Your task to perform on an android device: Go to privacy settings Image 0: 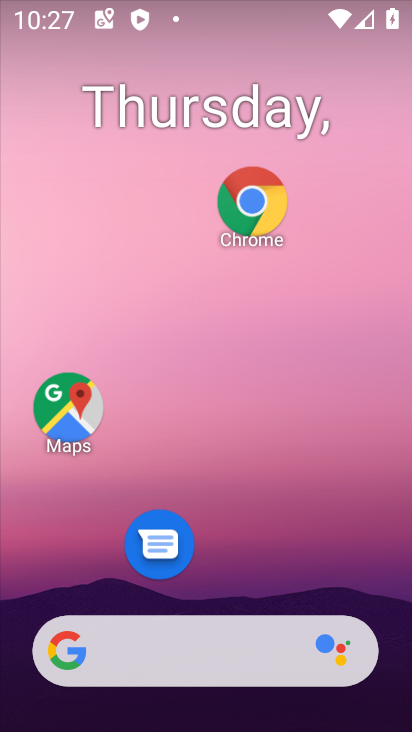
Step 0: drag from (206, 599) to (204, 59)
Your task to perform on an android device: Go to privacy settings Image 1: 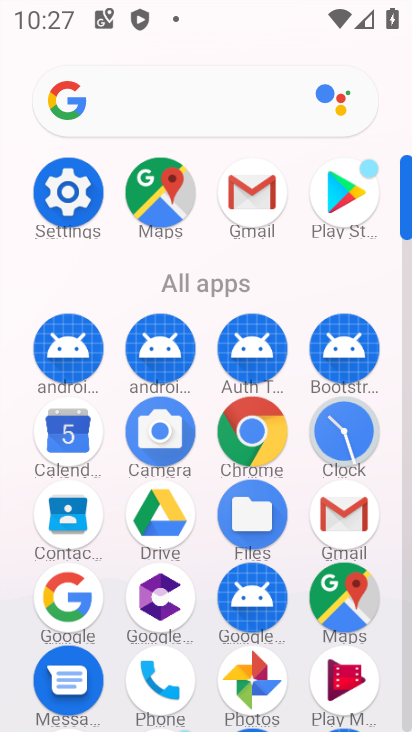
Step 1: click (68, 188)
Your task to perform on an android device: Go to privacy settings Image 2: 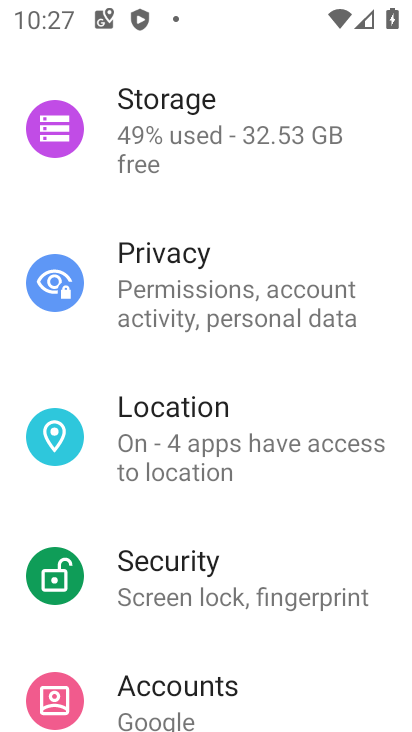
Step 2: click (91, 264)
Your task to perform on an android device: Go to privacy settings Image 3: 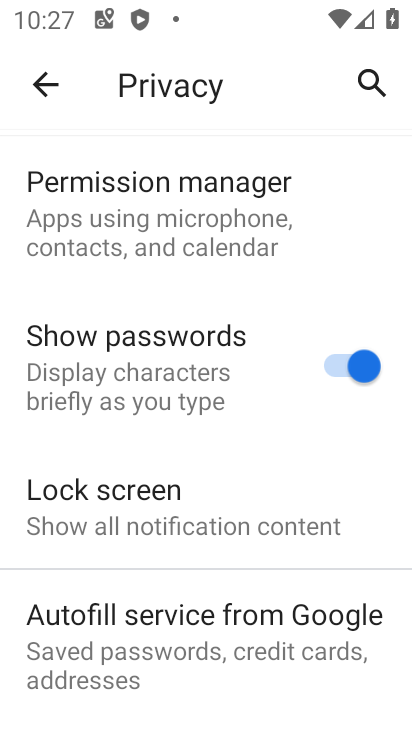
Step 3: drag from (199, 570) to (199, 160)
Your task to perform on an android device: Go to privacy settings Image 4: 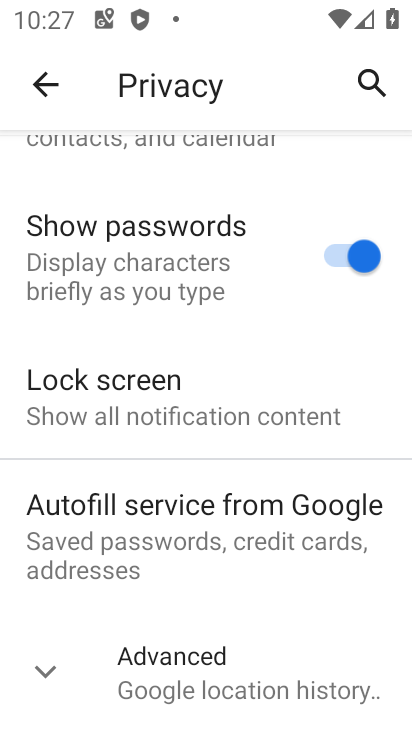
Step 4: click (45, 668)
Your task to perform on an android device: Go to privacy settings Image 5: 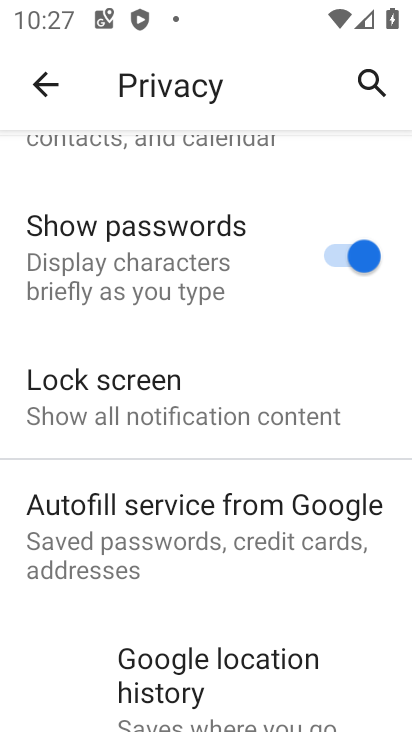
Step 5: task complete